Your task to perform on an android device: Open Google Maps Image 0: 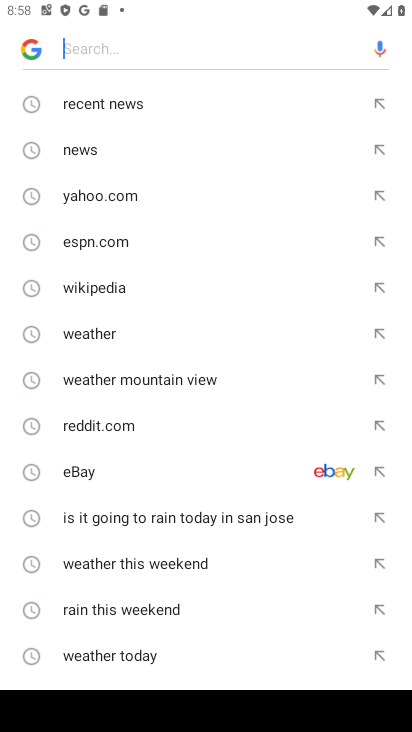
Step 0: press home button
Your task to perform on an android device: Open Google Maps Image 1: 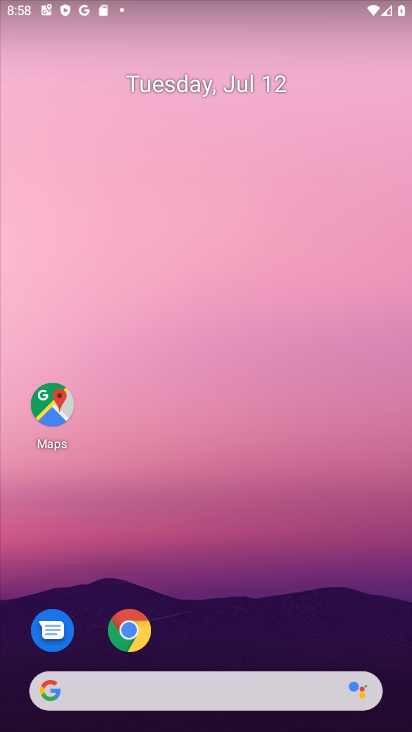
Step 1: click (51, 406)
Your task to perform on an android device: Open Google Maps Image 2: 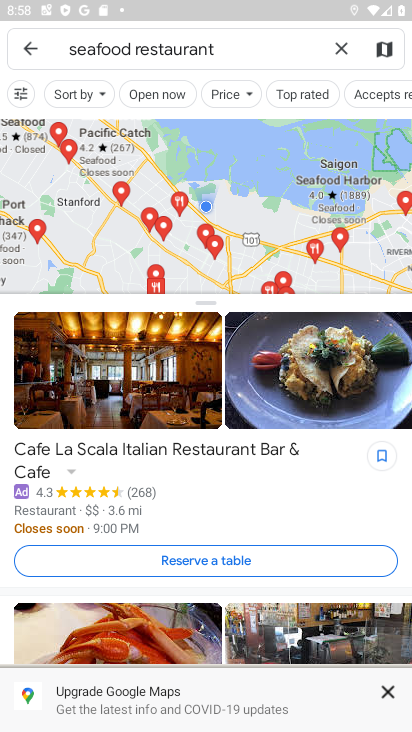
Step 2: task complete